Your task to perform on an android device: Go to Google Image 0: 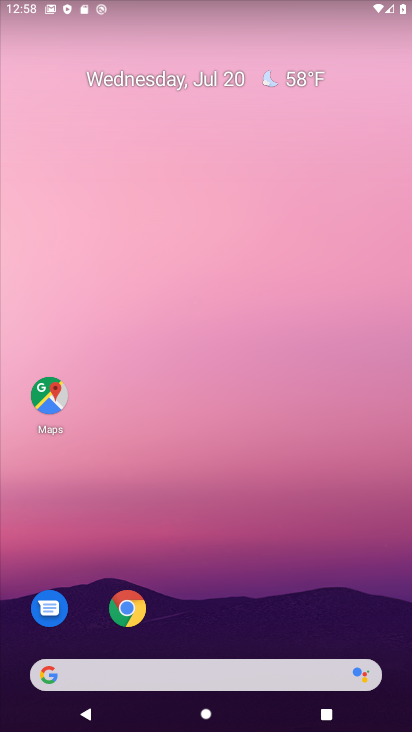
Step 0: drag from (244, 720) to (244, 210)
Your task to perform on an android device: Go to Google Image 1: 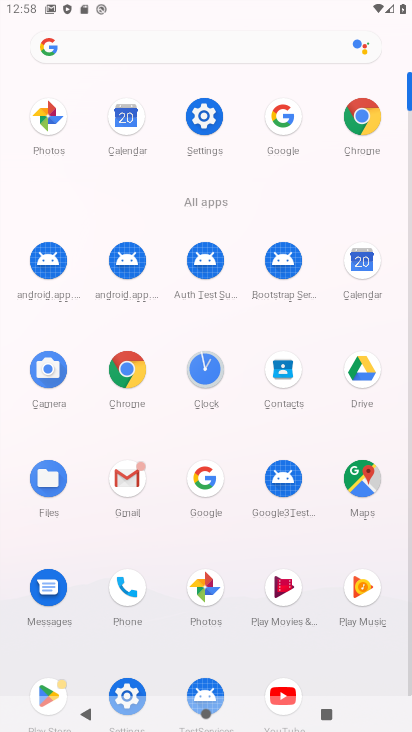
Step 1: click (201, 475)
Your task to perform on an android device: Go to Google Image 2: 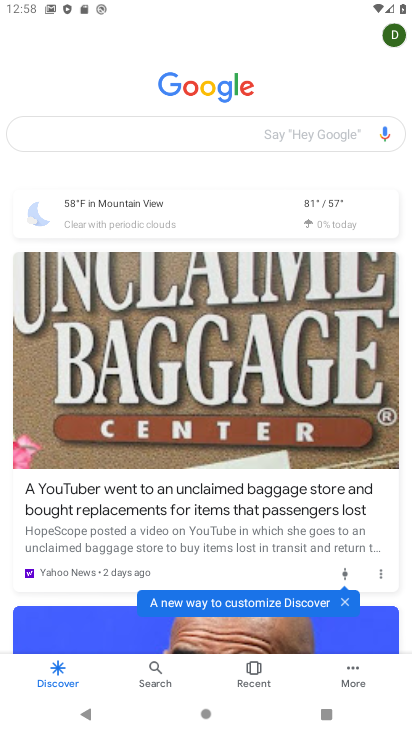
Step 2: task complete